Your task to perform on an android device: open a new tab in the chrome app Image 0: 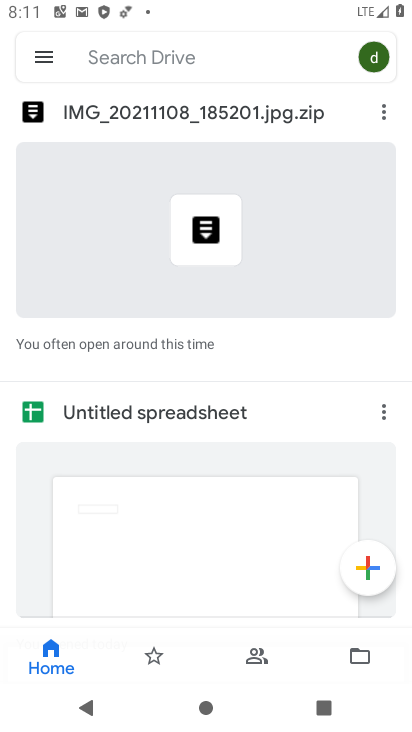
Step 0: press home button
Your task to perform on an android device: open a new tab in the chrome app Image 1: 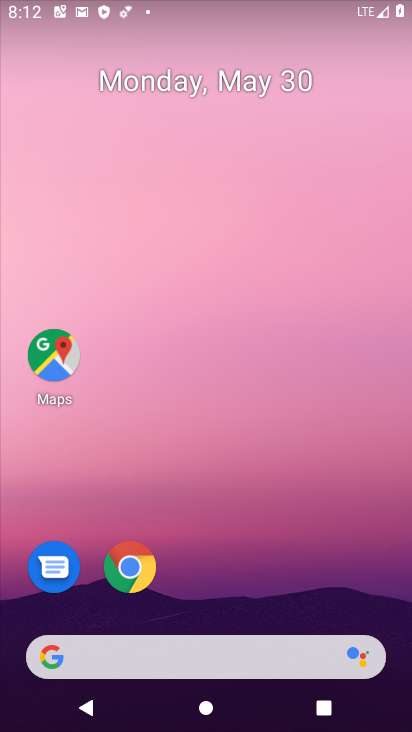
Step 1: click (142, 552)
Your task to perform on an android device: open a new tab in the chrome app Image 2: 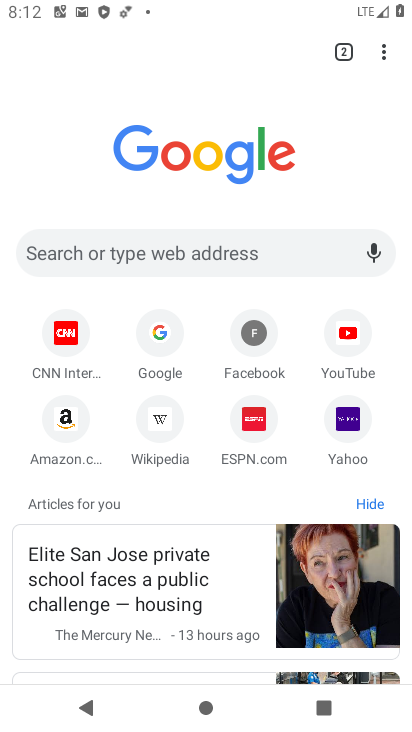
Step 2: click (336, 60)
Your task to perform on an android device: open a new tab in the chrome app Image 3: 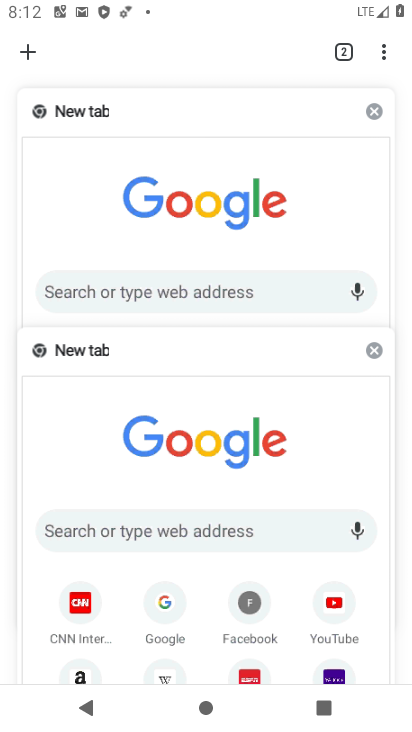
Step 3: click (24, 66)
Your task to perform on an android device: open a new tab in the chrome app Image 4: 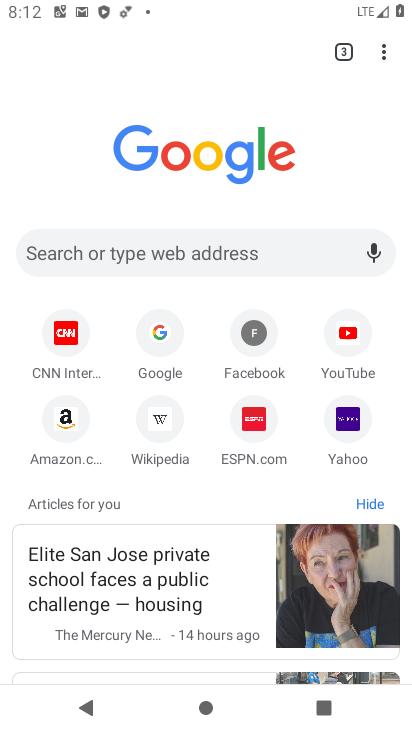
Step 4: task complete